Your task to perform on an android device: Open calendar and show me the fourth week of next month Image 0: 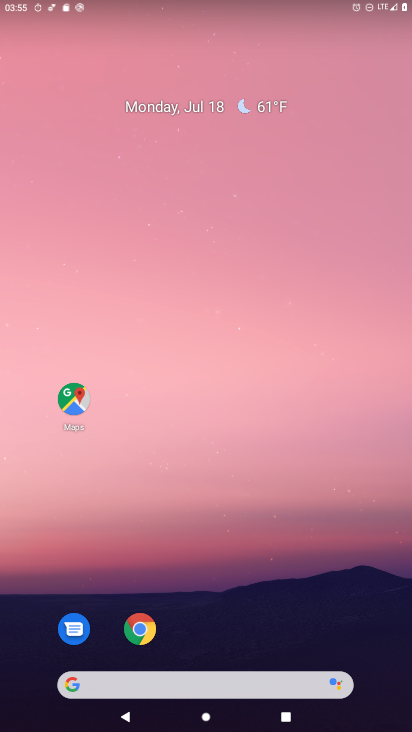
Step 0: drag from (202, 688) to (285, 56)
Your task to perform on an android device: Open calendar and show me the fourth week of next month Image 1: 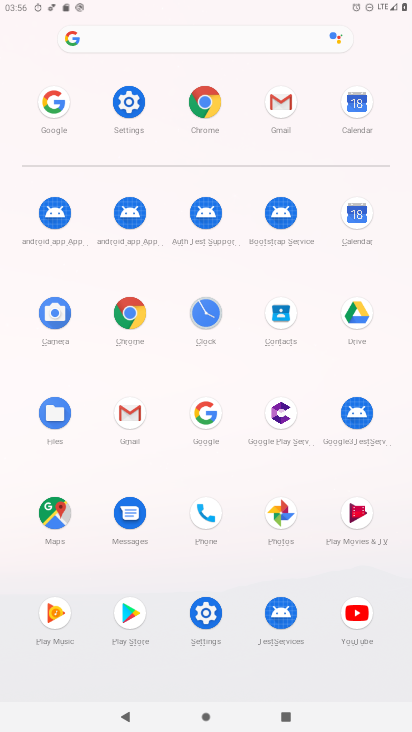
Step 1: click (356, 213)
Your task to perform on an android device: Open calendar and show me the fourth week of next month Image 2: 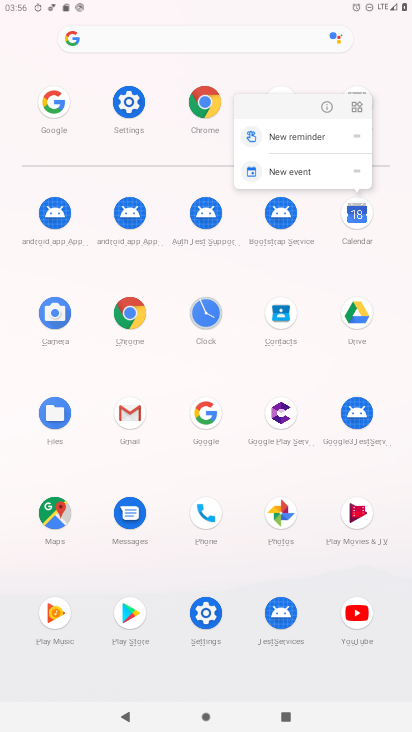
Step 2: click (356, 213)
Your task to perform on an android device: Open calendar and show me the fourth week of next month Image 3: 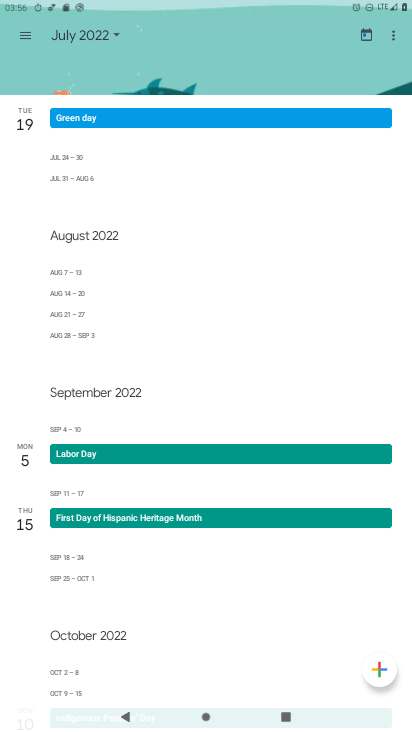
Step 3: click (368, 35)
Your task to perform on an android device: Open calendar and show me the fourth week of next month Image 4: 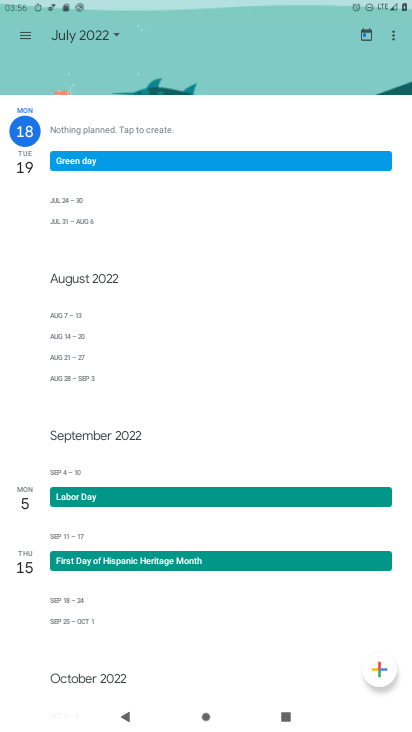
Step 4: click (116, 36)
Your task to perform on an android device: Open calendar and show me the fourth week of next month Image 5: 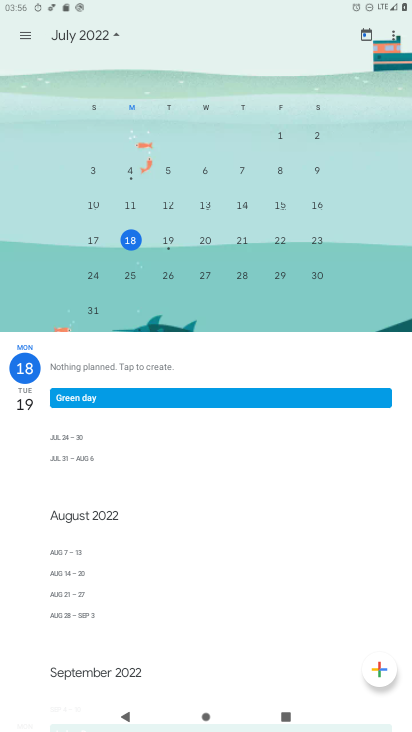
Step 5: drag from (320, 227) to (29, 329)
Your task to perform on an android device: Open calendar and show me the fourth week of next month Image 6: 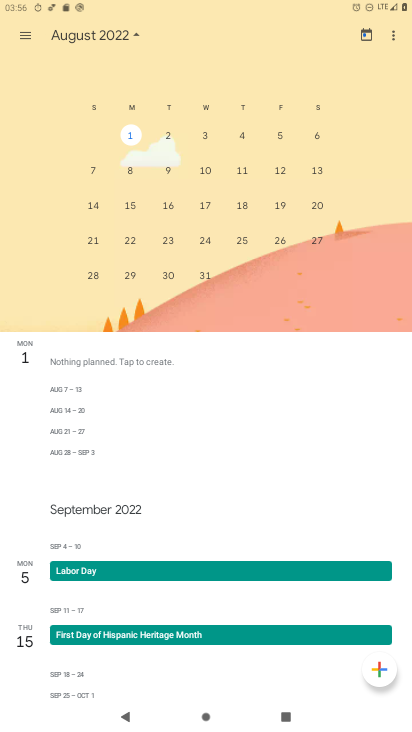
Step 6: click (132, 238)
Your task to perform on an android device: Open calendar and show me the fourth week of next month Image 7: 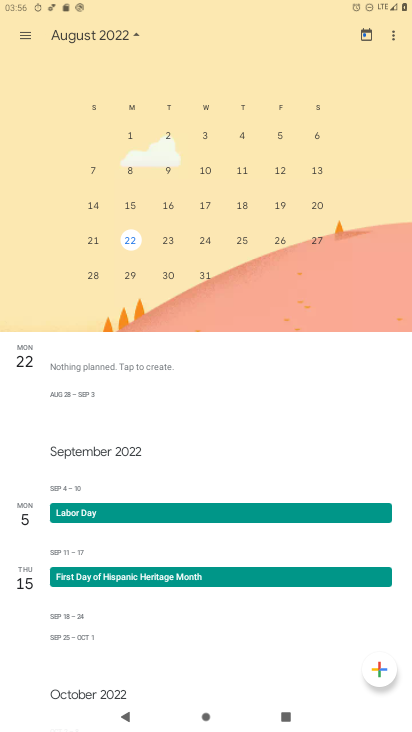
Step 7: click (23, 33)
Your task to perform on an android device: Open calendar and show me the fourth week of next month Image 8: 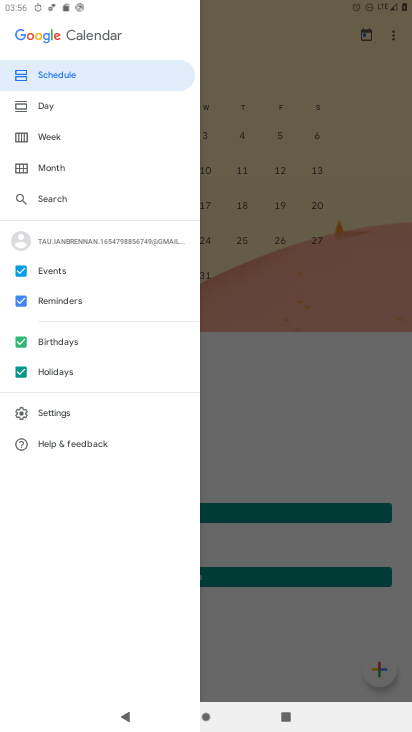
Step 8: click (55, 140)
Your task to perform on an android device: Open calendar and show me the fourth week of next month Image 9: 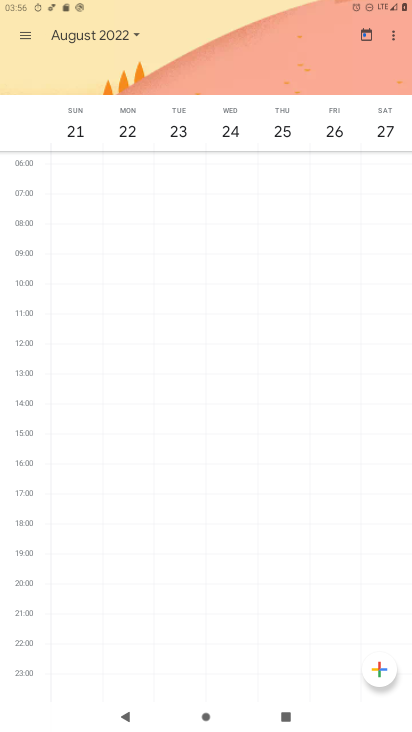
Step 9: task complete